Your task to perform on an android device: Open my contact list Image 0: 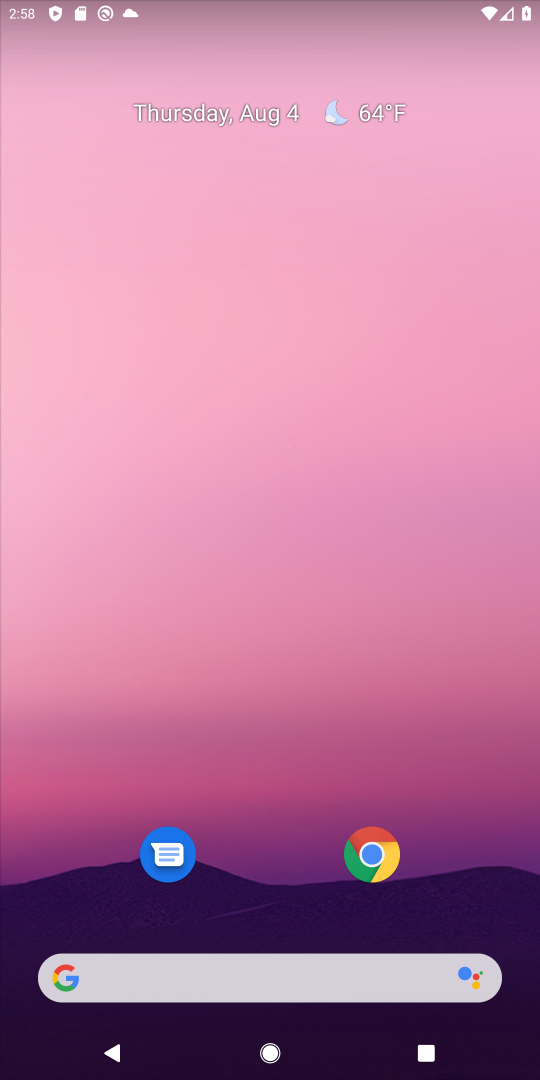
Step 0: drag from (336, 722) to (325, 258)
Your task to perform on an android device: Open my contact list Image 1: 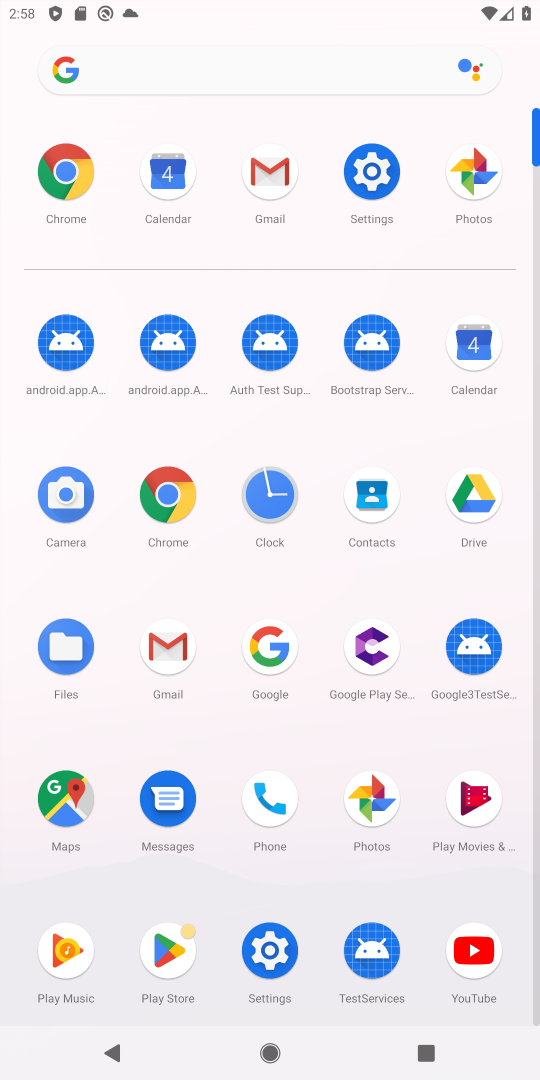
Step 1: click (371, 507)
Your task to perform on an android device: Open my contact list Image 2: 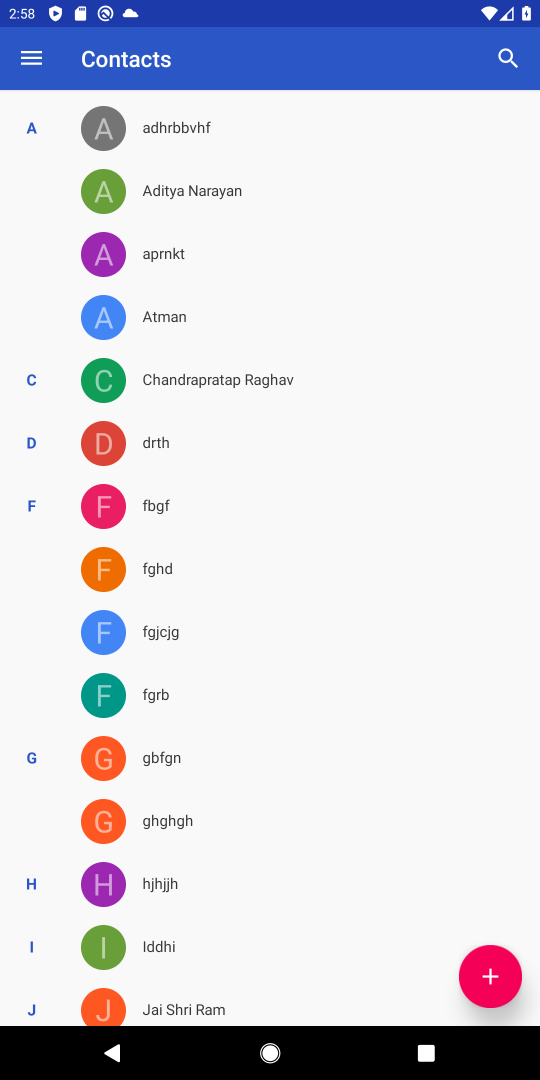
Step 2: task complete